Your task to perform on an android device: Open eBay Image 0: 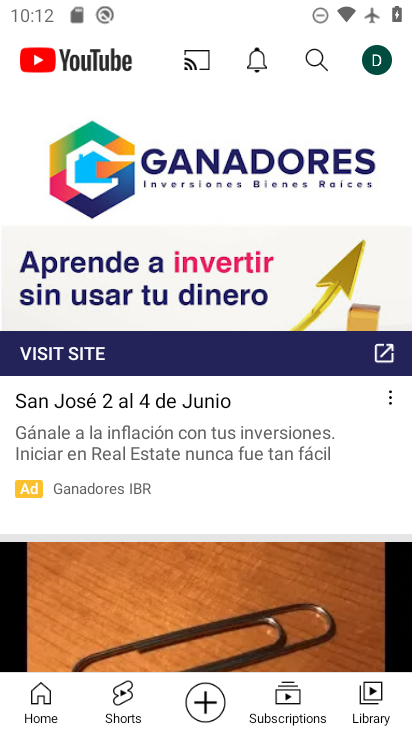
Step 0: press home button
Your task to perform on an android device: Open eBay Image 1: 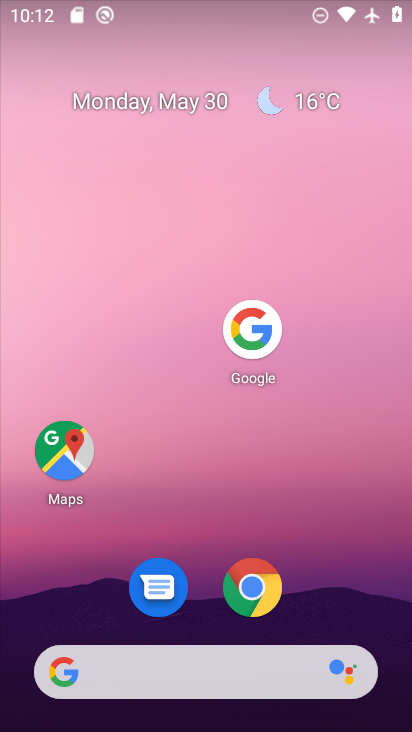
Step 1: click (264, 569)
Your task to perform on an android device: Open eBay Image 2: 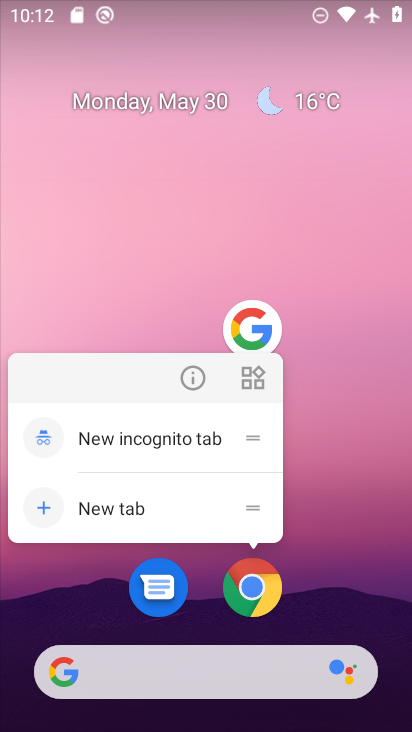
Step 2: click (255, 597)
Your task to perform on an android device: Open eBay Image 3: 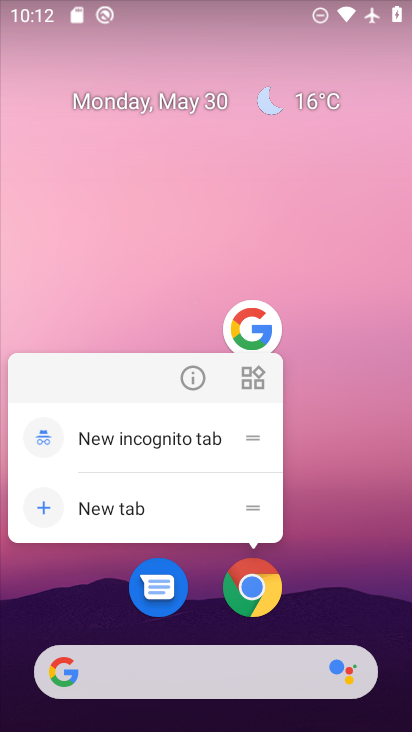
Step 3: click (262, 588)
Your task to perform on an android device: Open eBay Image 4: 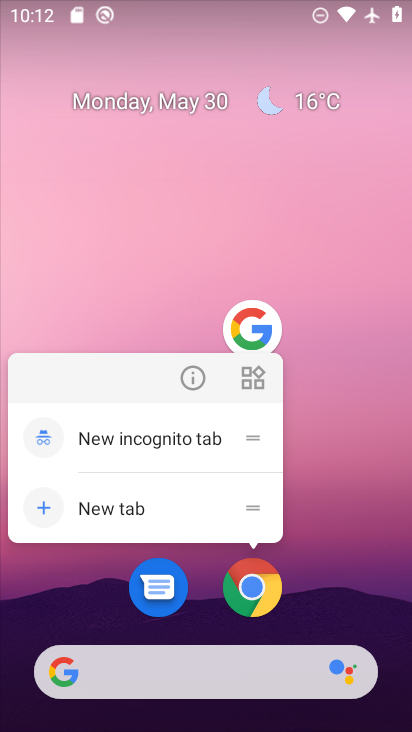
Step 4: click (262, 588)
Your task to perform on an android device: Open eBay Image 5: 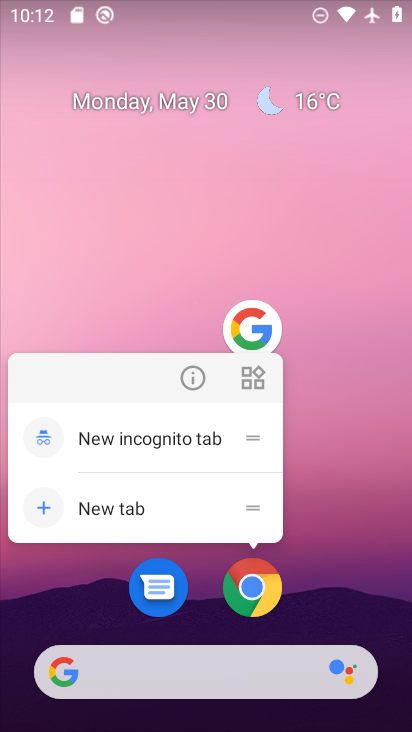
Step 5: click (262, 584)
Your task to perform on an android device: Open eBay Image 6: 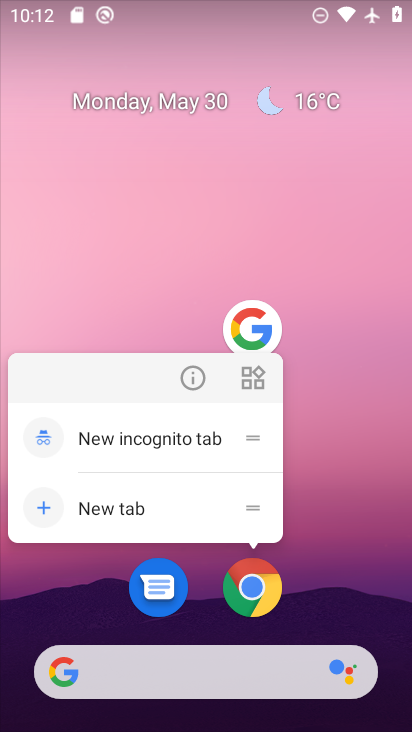
Step 6: click (262, 590)
Your task to perform on an android device: Open eBay Image 7: 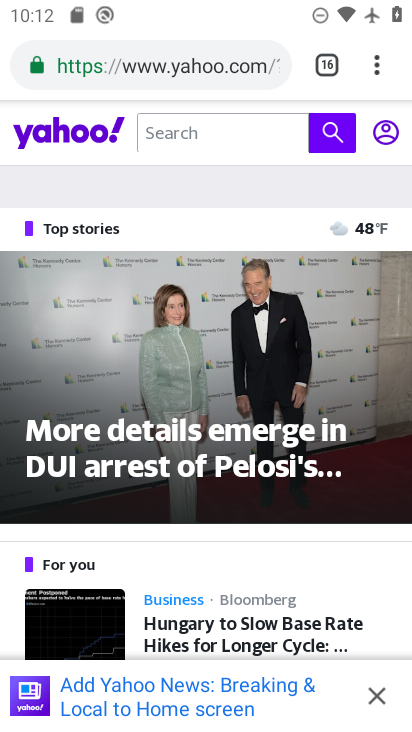
Step 7: drag from (375, 65) to (284, 133)
Your task to perform on an android device: Open eBay Image 8: 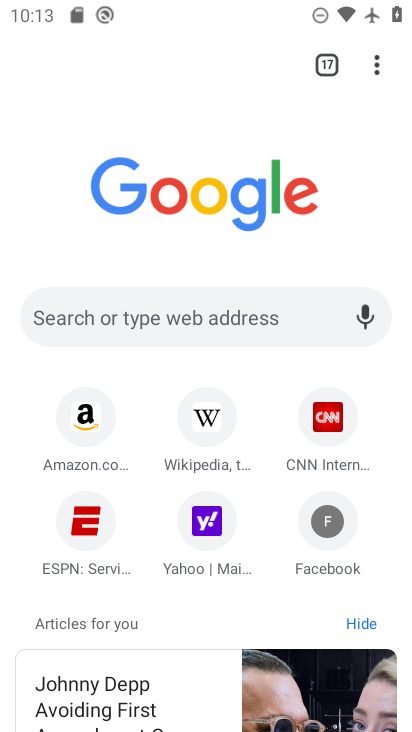
Step 8: click (100, 312)
Your task to perform on an android device: Open eBay Image 9: 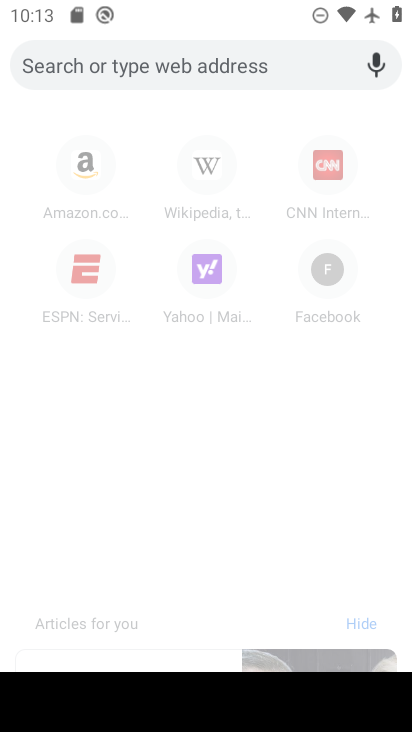
Step 9: type "ebay"
Your task to perform on an android device: Open eBay Image 10: 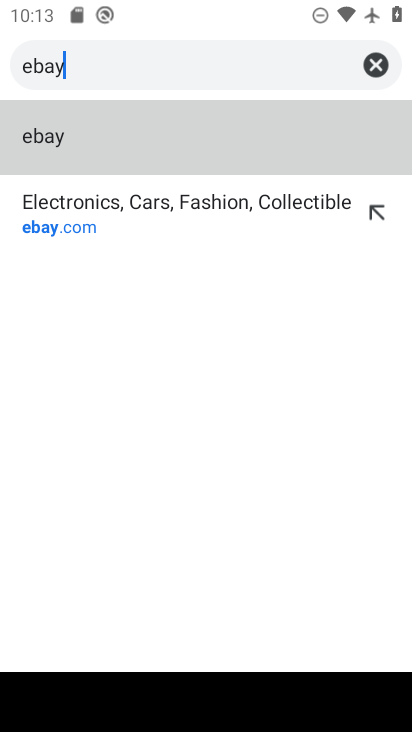
Step 10: click (193, 205)
Your task to perform on an android device: Open eBay Image 11: 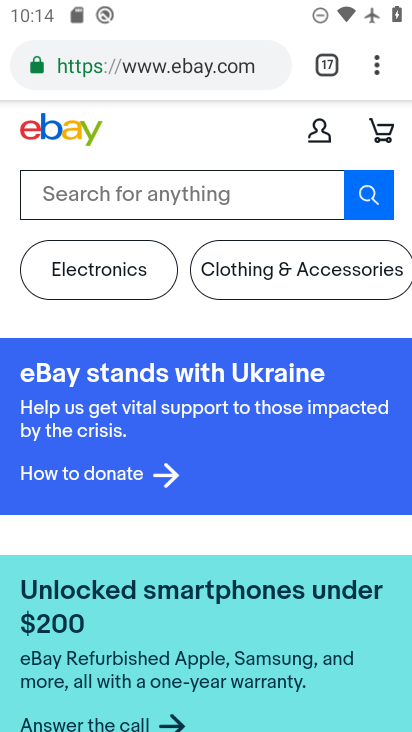
Step 11: task complete